Your task to perform on an android device: manage bookmarks in the chrome app Image 0: 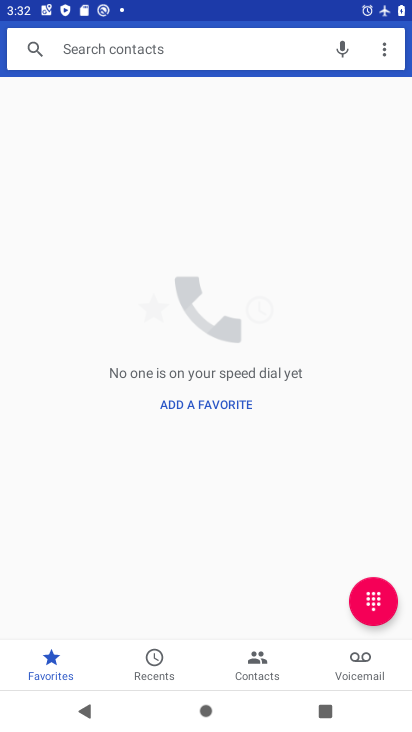
Step 0: press home button
Your task to perform on an android device: manage bookmarks in the chrome app Image 1: 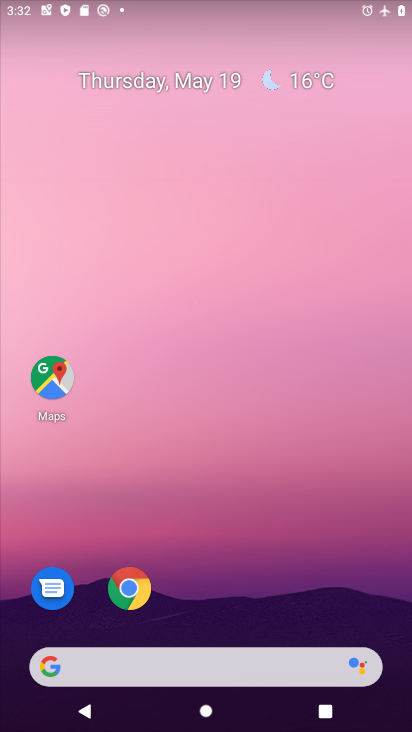
Step 1: click (143, 586)
Your task to perform on an android device: manage bookmarks in the chrome app Image 2: 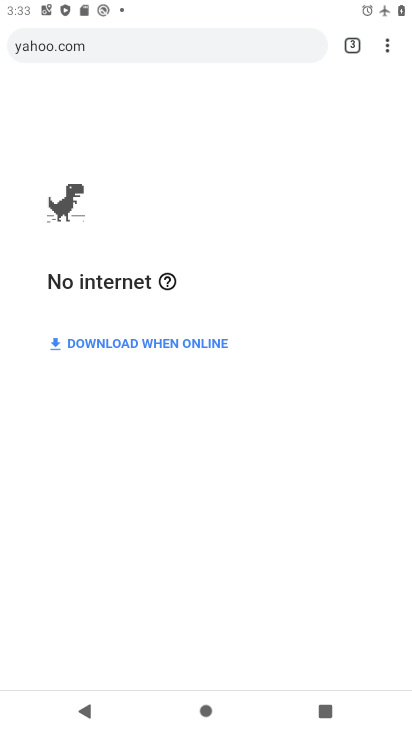
Step 2: task complete